Your task to perform on an android device: Open the stopwatch Image 0: 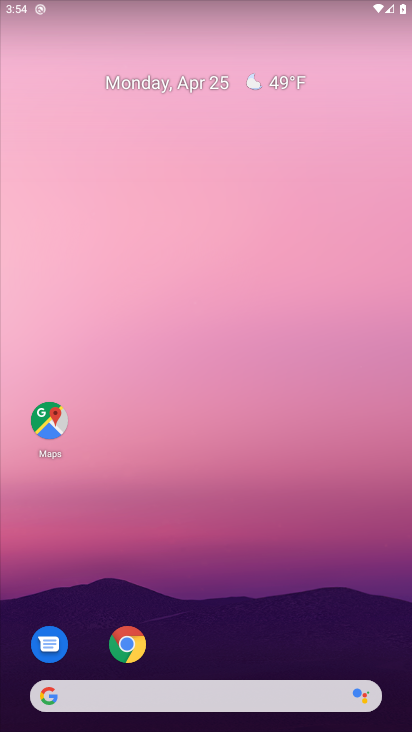
Step 0: click (211, 136)
Your task to perform on an android device: Open the stopwatch Image 1: 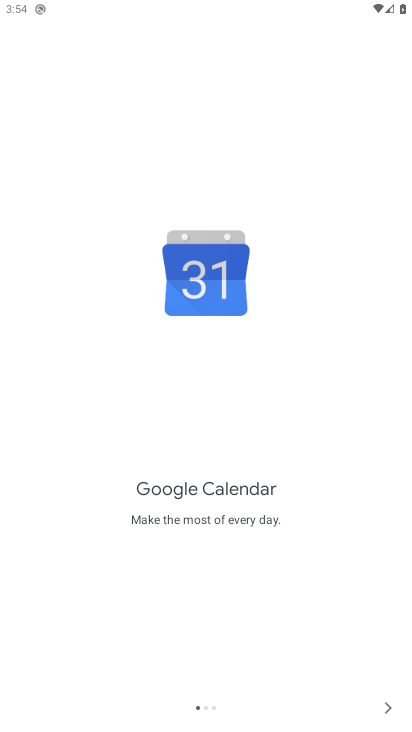
Step 1: press home button
Your task to perform on an android device: Open the stopwatch Image 2: 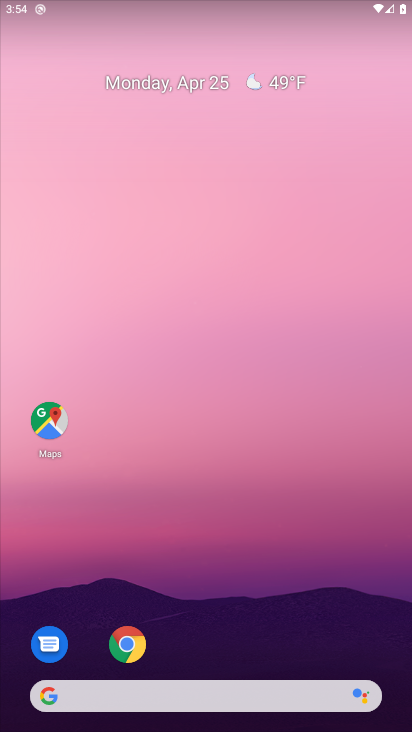
Step 2: drag from (250, 620) to (192, 1)
Your task to perform on an android device: Open the stopwatch Image 3: 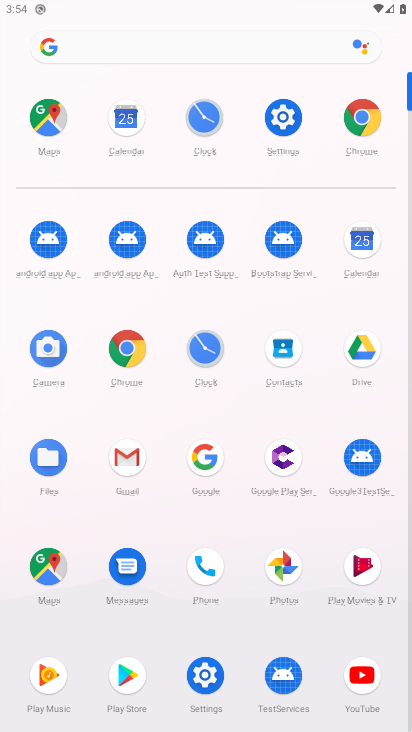
Step 3: click (278, 123)
Your task to perform on an android device: Open the stopwatch Image 4: 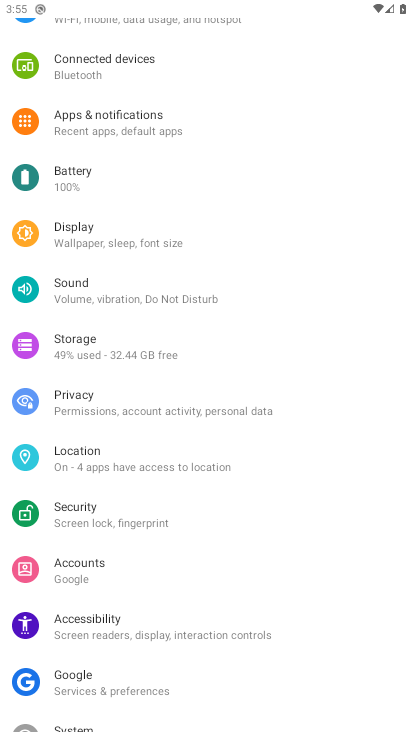
Step 4: press home button
Your task to perform on an android device: Open the stopwatch Image 5: 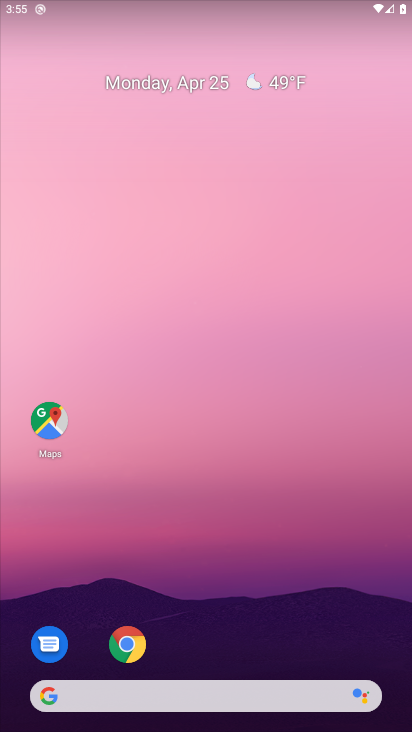
Step 5: drag from (220, 611) to (167, 0)
Your task to perform on an android device: Open the stopwatch Image 6: 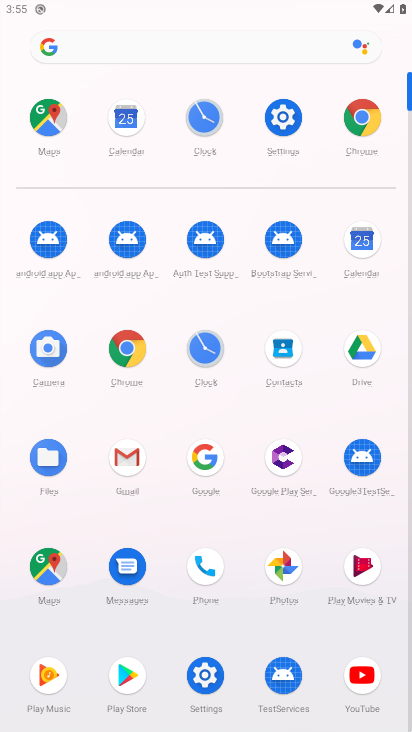
Step 6: click (212, 154)
Your task to perform on an android device: Open the stopwatch Image 7: 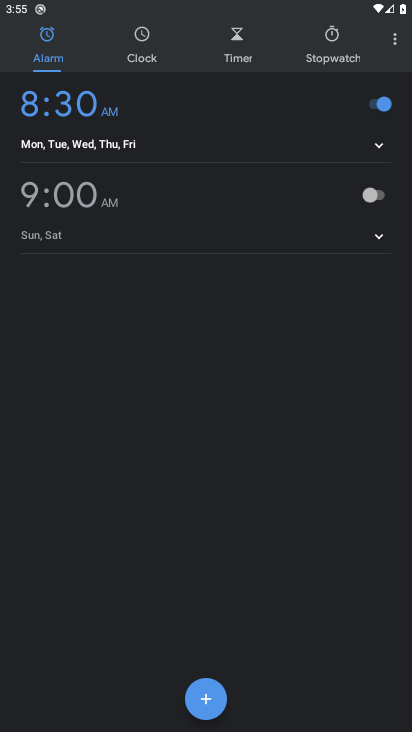
Step 7: click (322, 53)
Your task to perform on an android device: Open the stopwatch Image 8: 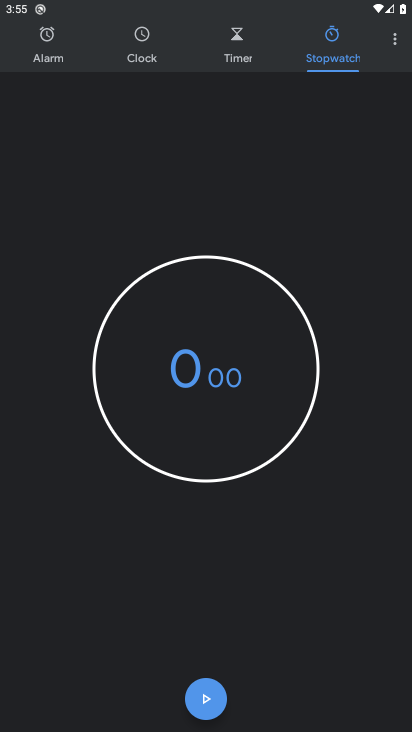
Step 8: task complete